Your task to perform on an android device: change timer sound Image 0: 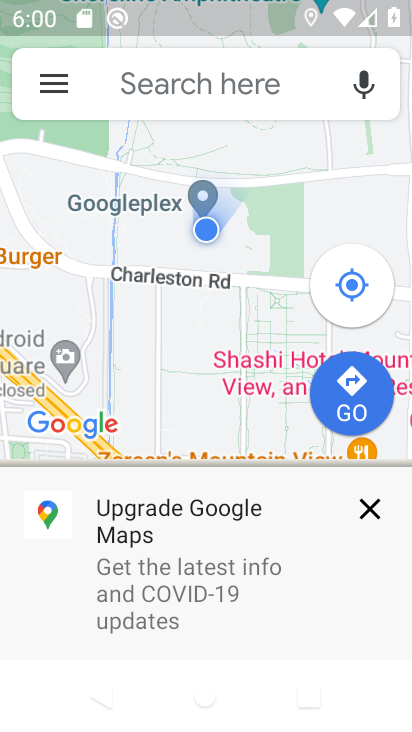
Step 0: click (359, 509)
Your task to perform on an android device: change timer sound Image 1: 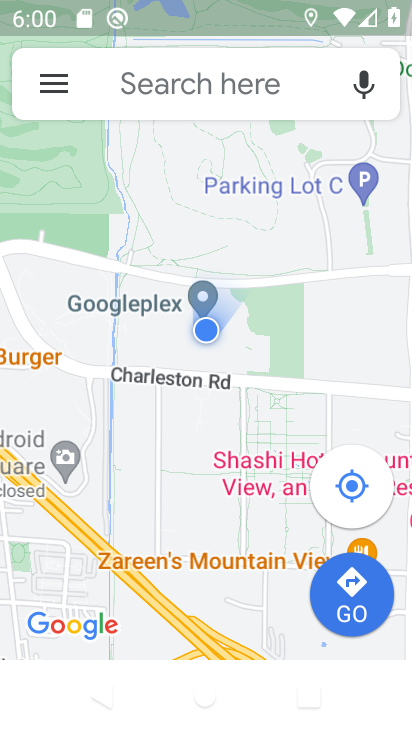
Step 1: press home button
Your task to perform on an android device: change timer sound Image 2: 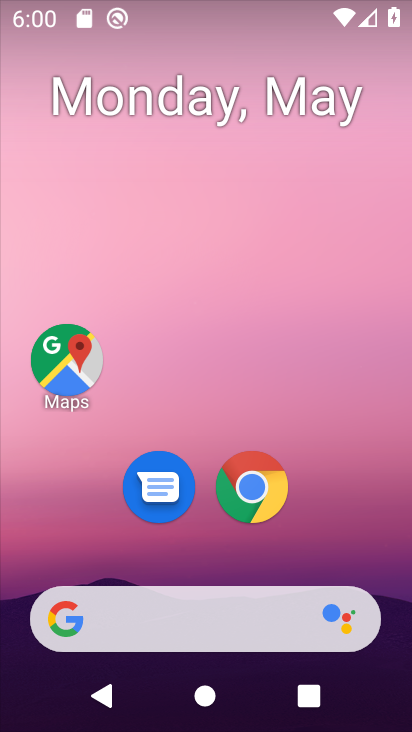
Step 2: drag from (203, 561) to (193, 159)
Your task to perform on an android device: change timer sound Image 3: 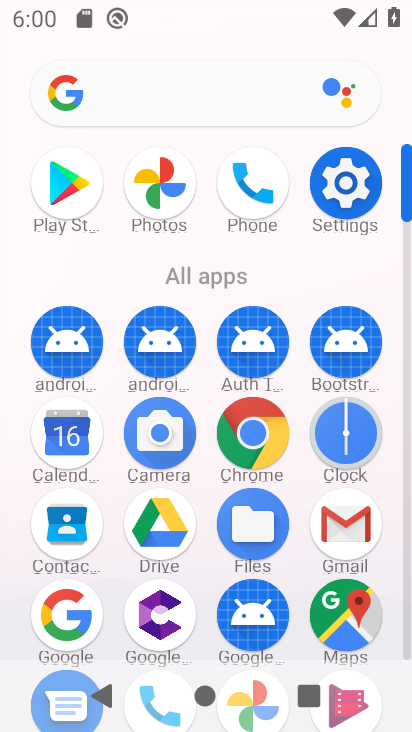
Step 3: drag from (207, 561) to (228, 122)
Your task to perform on an android device: change timer sound Image 4: 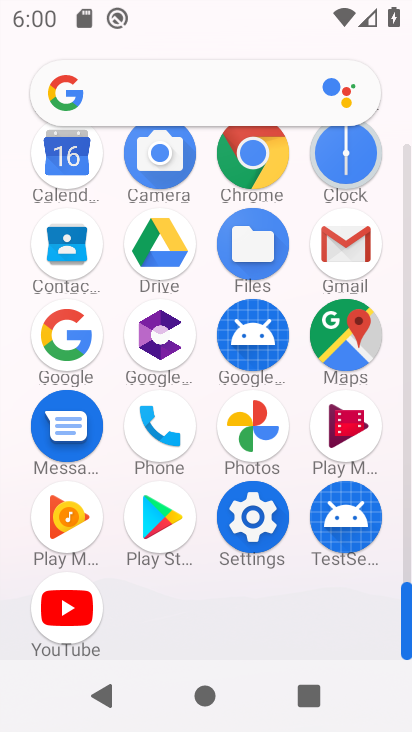
Step 4: drag from (201, 207) to (220, 497)
Your task to perform on an android device: change timer sound Image 5: 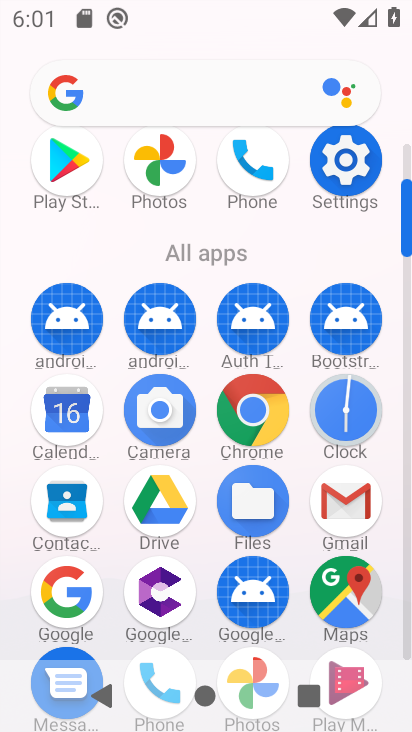
Step 5: click (349, 402)
Your task to perform on an android device: change timer sound Image 6: 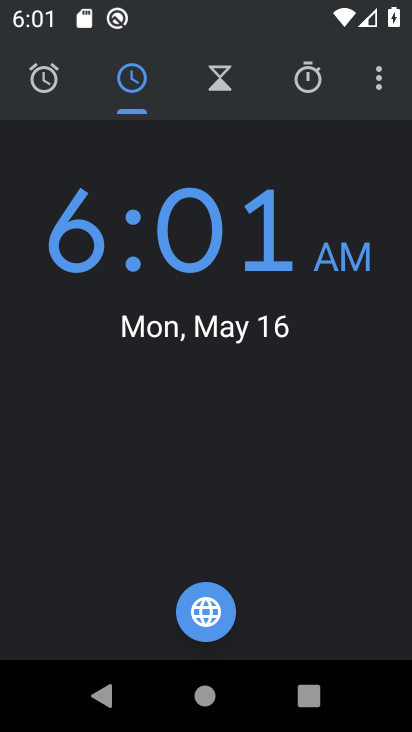
Step 6: click (372, 75)
Your task to perform on an android device: change timer sound Image 7: 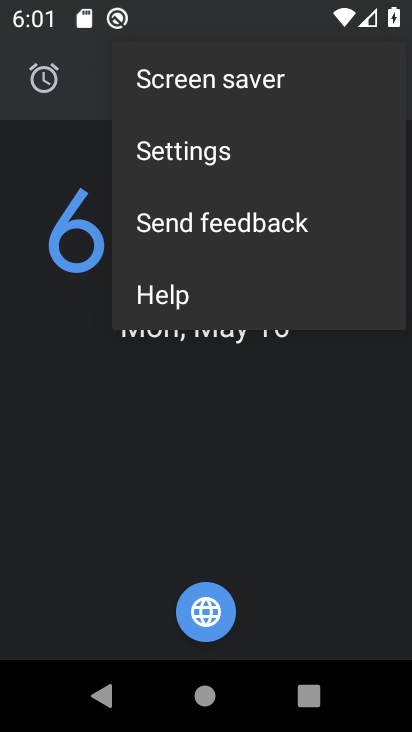
Step 7: click (237, 151)
Your task to perform on an android device: change timer sound Image 8: 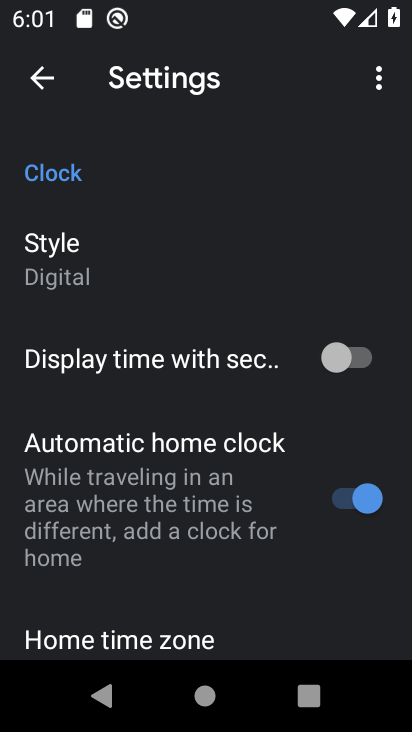
Step 8: drag from (192, 582) to (232, 228)
Your task to perform on an android device: change timer sound Image 9: 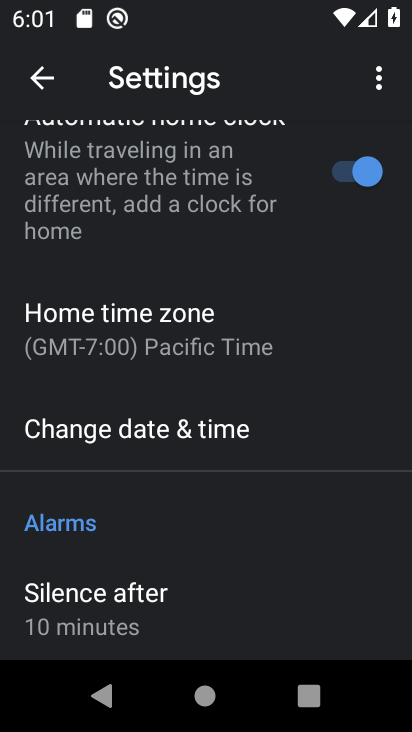
Step 9: drag from (205, 582) to (225, 211)
Your task to perform on an android device: change timer sound Image 10: 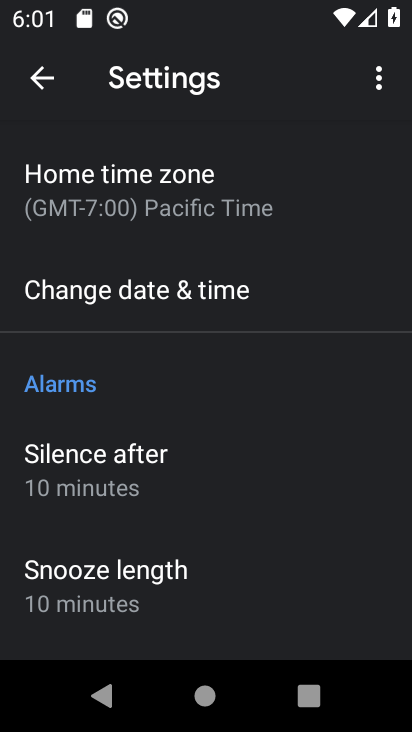
Step 10: drag from (208, 555) to (238, 101)
Your task to perform on an android device: change timer sound Image 11: 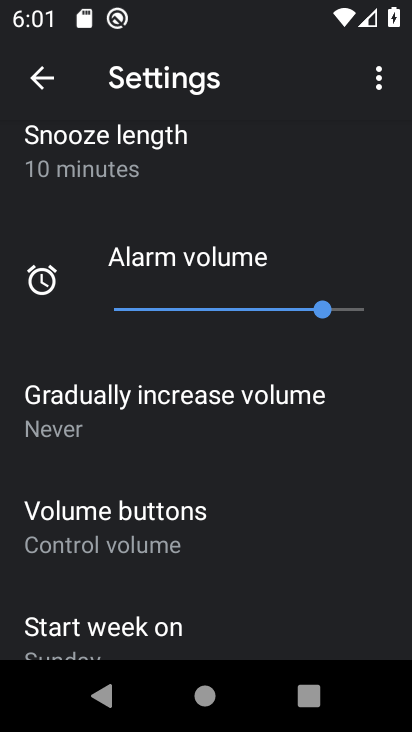
Step 11: drag from (241, 608) to (274, 217)
Your task to perform on an android device: change timer sound Image 12: 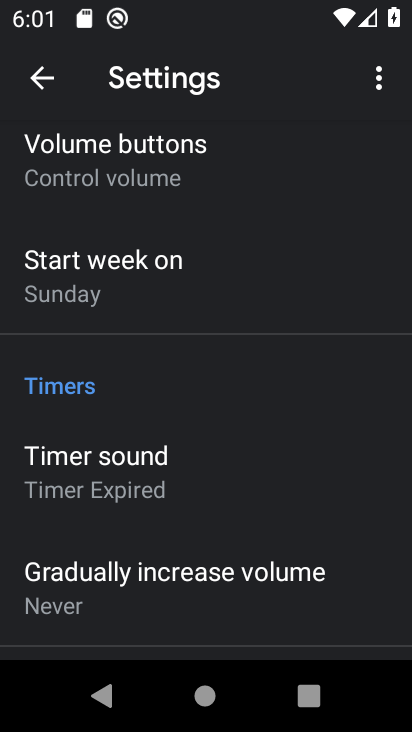
Step 12: click (190, 480)
Your task to perform on an android device: change timer sound Image 13: 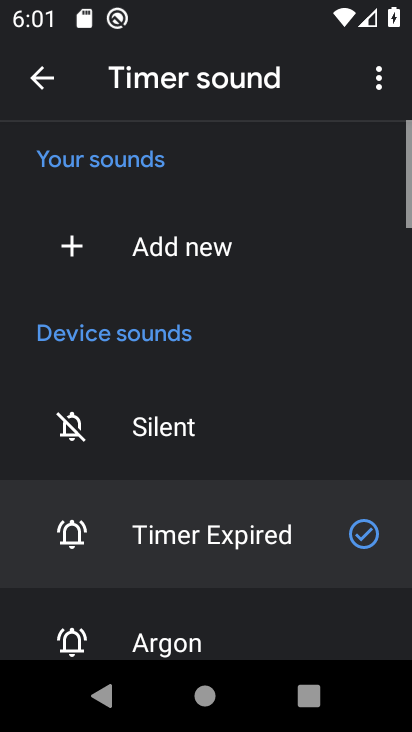
Step 13: drag from (224, 539) to (239, 343)
Your task to perform on an android device: change timer sound Image 14: 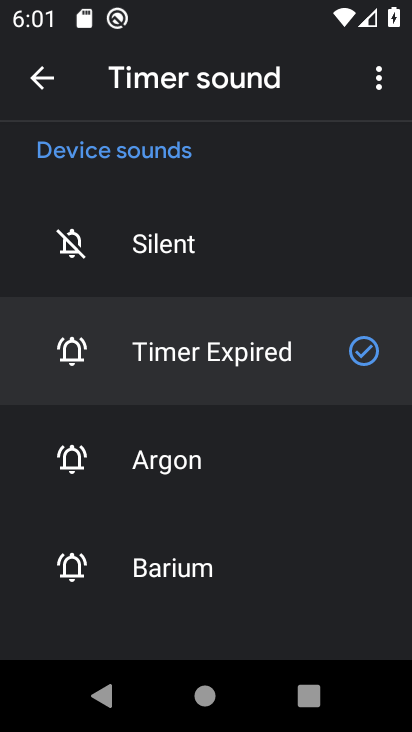
Step 14: click (226, 572)
Your task to perform on an android device: change timer sound Image 15: 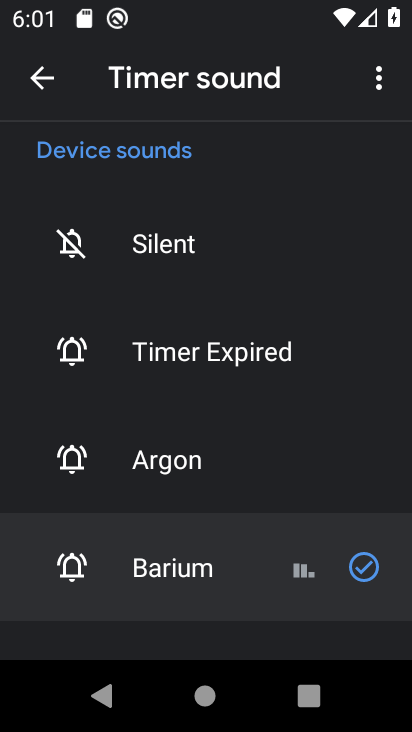
Step 15: task complete